Your task to perform on an android device: turn off javascript in the chrome app Image 0: 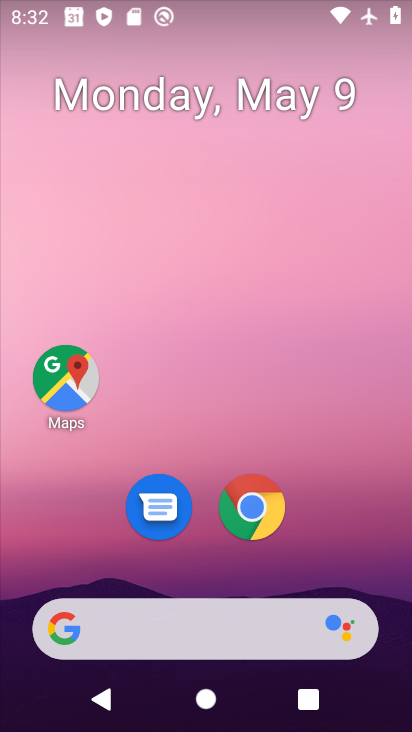
Step 0: drag from (175, 561) to (180, 9)
Your task to perform on an android device: turn off javascript in the chrome app Image 1: 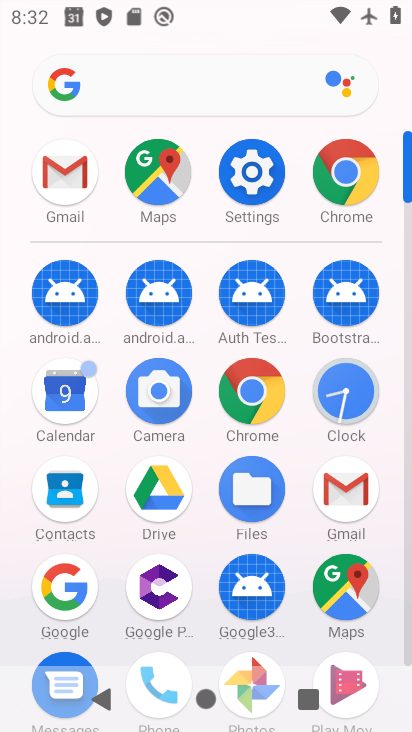
Step 1: click (323, 193)
Your task to perform on an android device: turn off javascript in the chrome app Image 2: 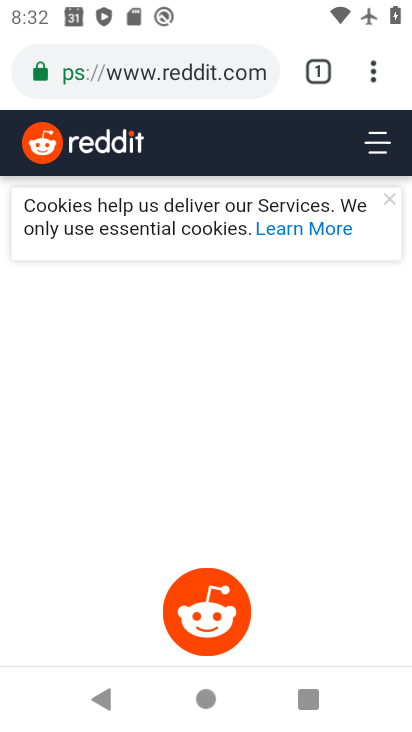
Step 2: drag from (369, 74) to (119, 515)
Your task to perform on an android device: turn off javascript in the chrome app Image 3: 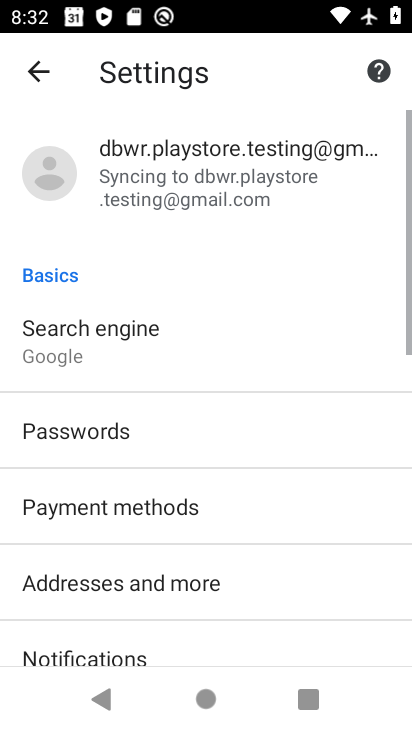
Step 3: drag from (142, 553) to (166, 32)
Your task to perform on an android device: turn off javascript in the chrome app Image 4: 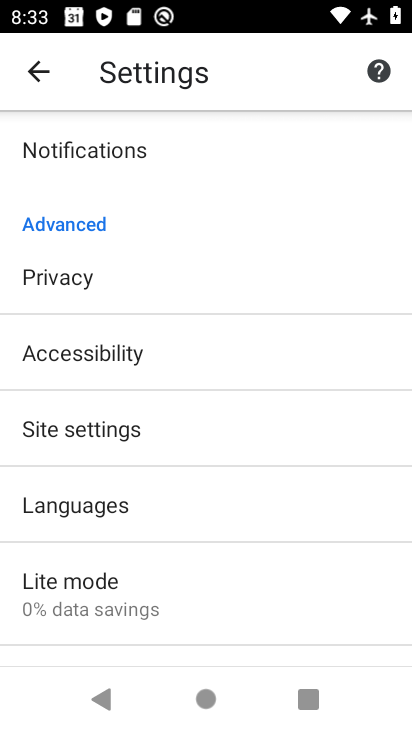
Step 4: click (92, 396)
Your task to perform on an android device: turn off javascript in the chrome app Image 5: 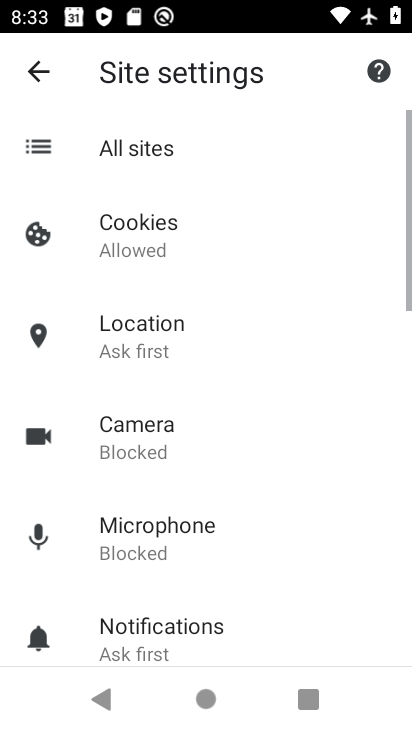
Step 5: drag from (152, 519) to (152, 145)
Your task to perform on an android device: turn off javascript in the chrome app Image 6: 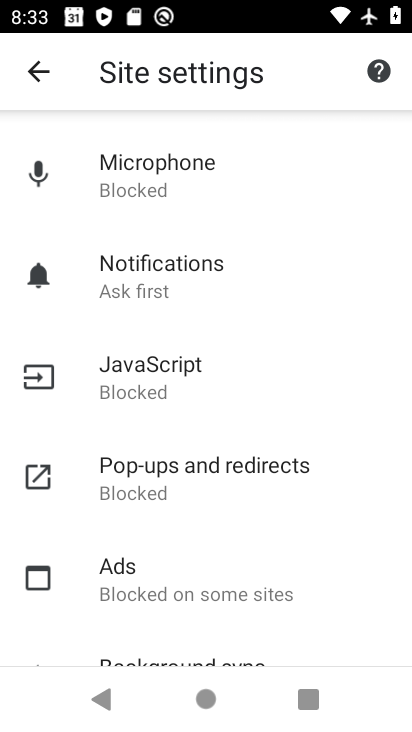
Step 6: click (111, 388)
Your task to perform on an android device: turn off javascript in the chrome app Image 7: 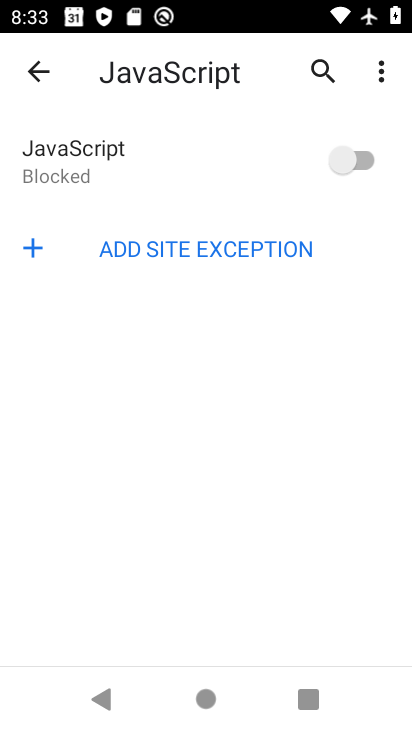
Step 7: task complete